Your task to perform on an android device: star an email in the gmail app Image 0: 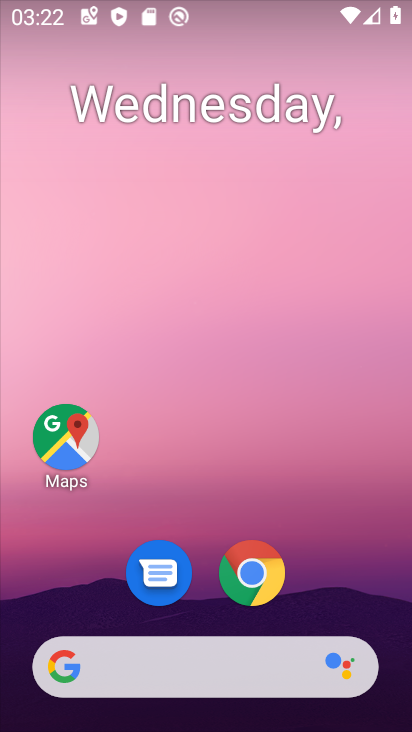
Step 0: drag from (331, 576) to (292, 32)
Your task to perform on an android device: star an email in the gmail app Image 1: 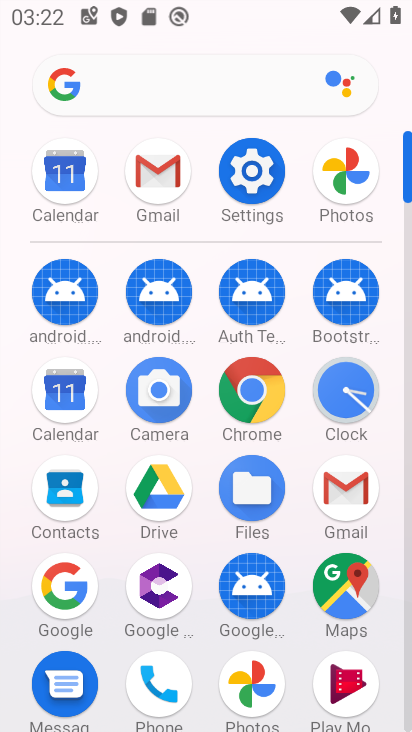
Step 1: click (162, 162)
Your task to perform on an android device: star an email in the gmail app Image 2: 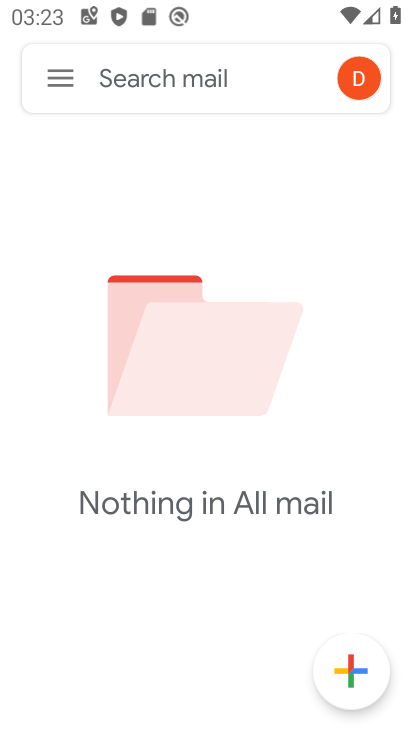
Step 2: click (62, 78)
Your task to perform on an android device: star an email in the gmail app Image 3: 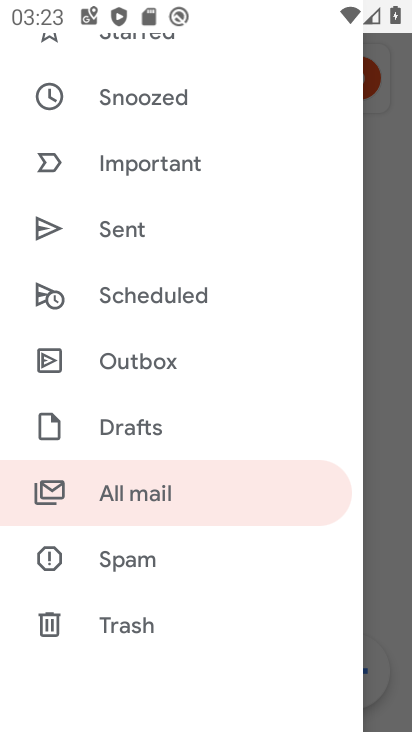
Step 3: drag from (197, 340) to (240, 502)
Your task to perform on an android device: star an email in the gmail app Image 4: 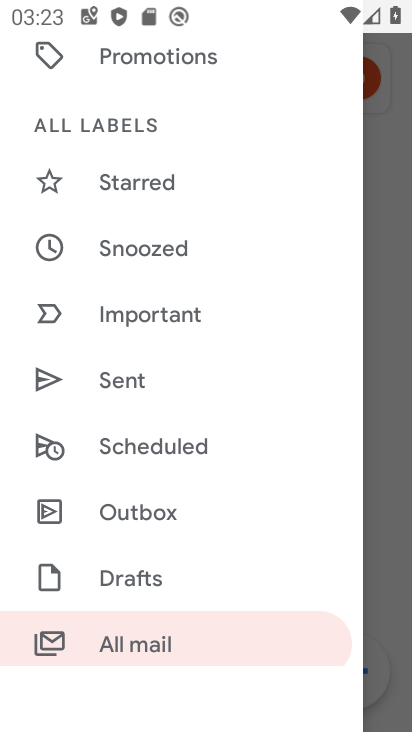
Step 4: click (148, 195)
Your task to perform on an android device: star an email in the gmail app Image 5: 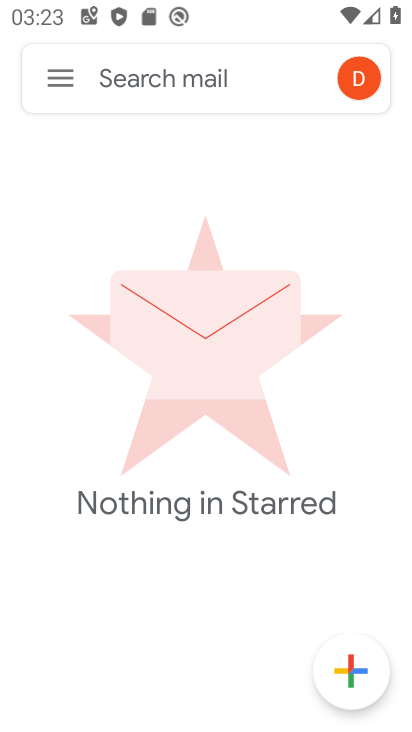
Step 5: click (63, 69)
Your task to perform on an android device: star an email in the gmail app Image 6: 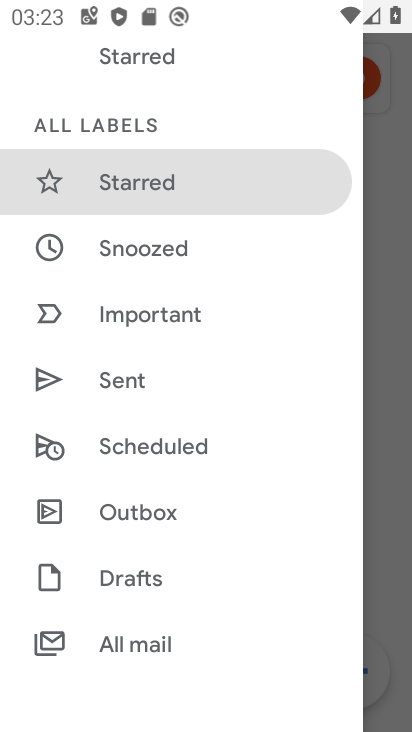
Step 6: drag from (208, 519) to (238, 301)
Your task to perform on an android device: star an email in the gmail app Image 7: 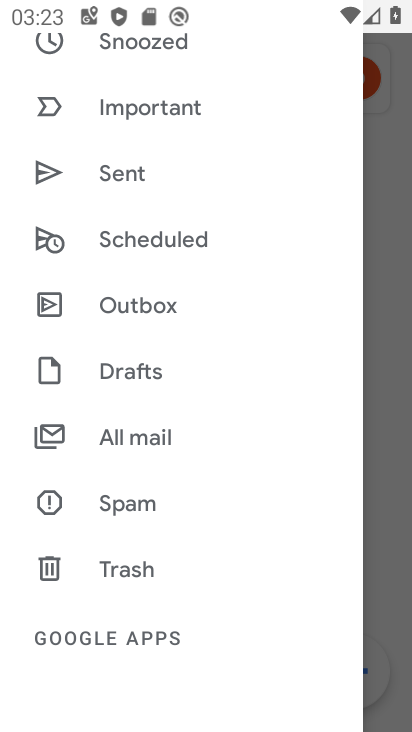
Step 7: click (134, 433)
Your task to perform on an android device: star an email in the gmail app Image 8: 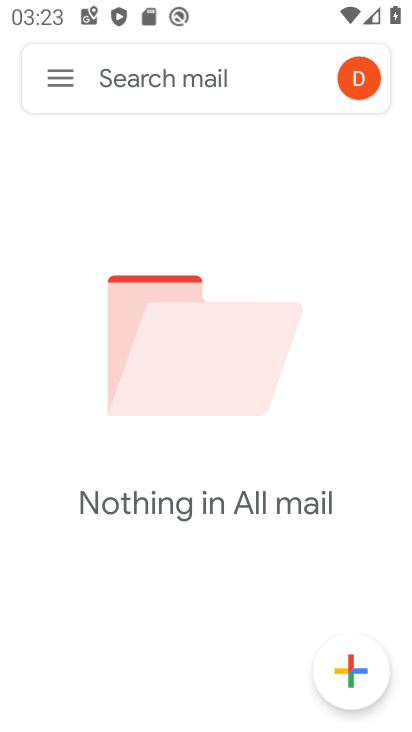
Step 8: task complete